Your task to perform on an android device: Set the phone to "Do not disturb". Image 0: 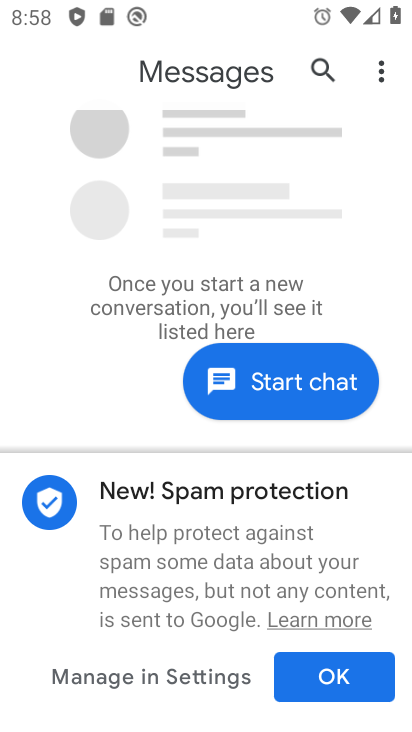
Step 0: press home button
Your task to perform on an android device: Set the phone to "Do not disturb". Image 1: 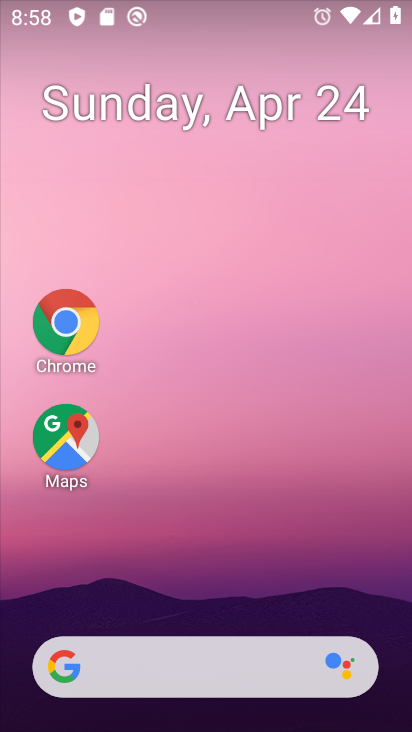
Step 1: drag from (207, 539) to (217, 28)
Your task to perform on an android device: Set the phone to "Do not disturb". Image 2: 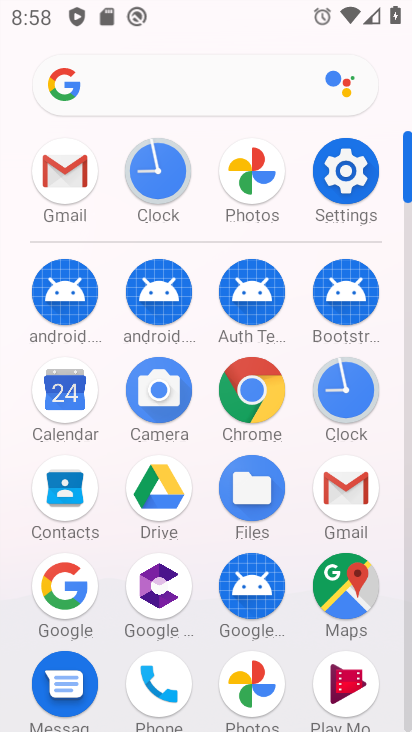
Step 2: click (344, 179)
Your task to perform on an android device: Set the phone to "Do not disturb". Image 3: 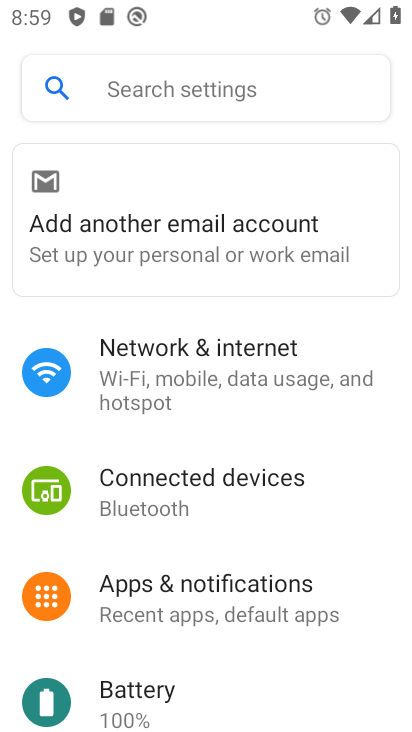
Step 3: drag from (214, 598) to (187, 346)
Your task to perform on an android device: Set the phone to "Do not disturb". Image 4: 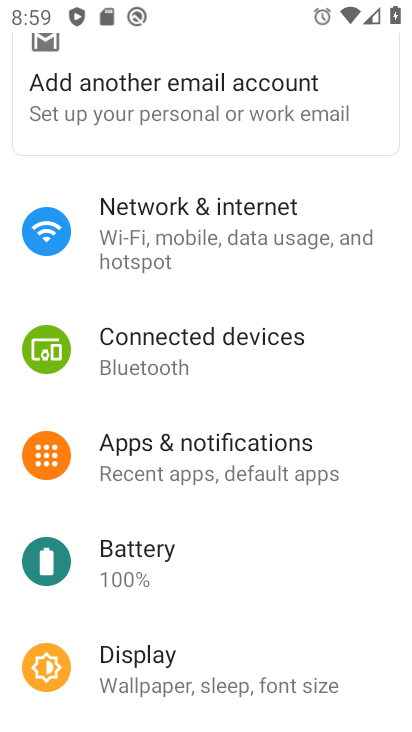
Step 4: drag from (197, 607) to (231, 293)
Your task to perform on an android device: Set the phone to "Do not disturb". Image 5: 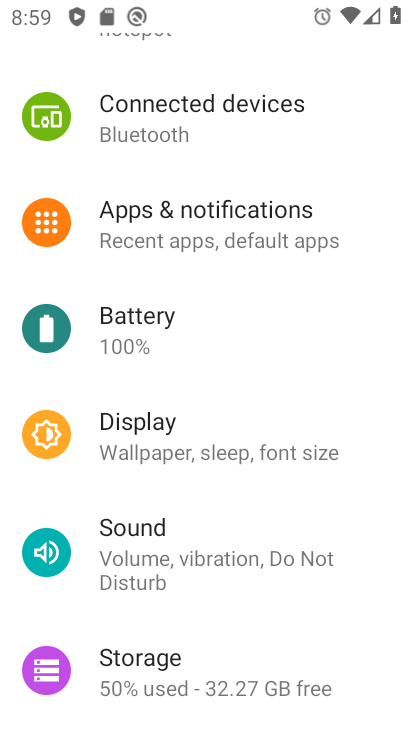
Step 5: click (135, 539)
Your task to perform on an android device: Set the phone to "Do not disturb". Image 6: 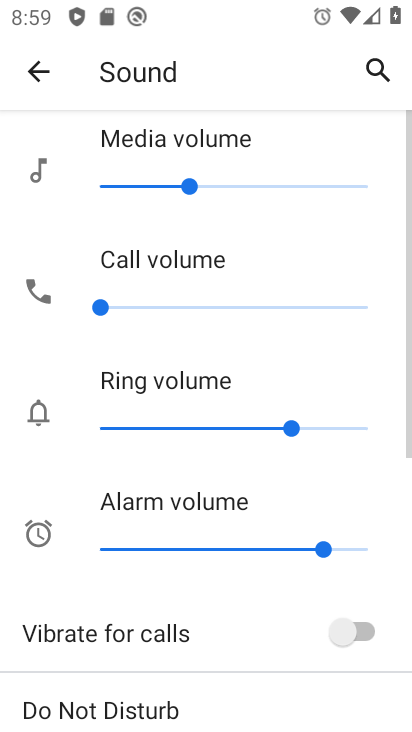
Step 6: drag from (210, 492) to (184, 123)
Your task to perform on an android device: Set the phone to "Do not disturb". Image 7: 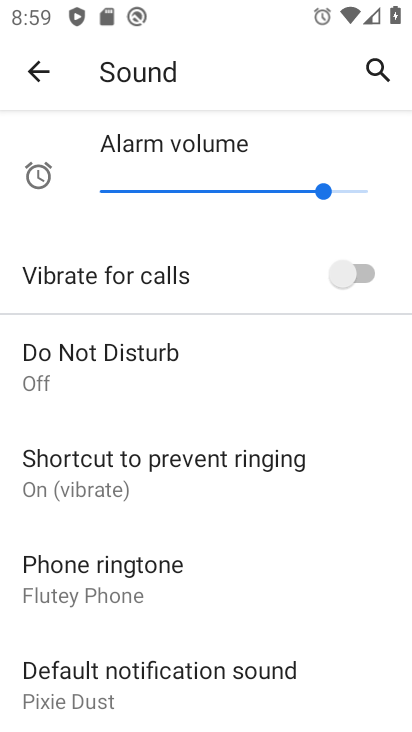
Step 7: click (76, 358)
Your task to perform on an android device: Set the phone to "Do not disturb". Image 8: 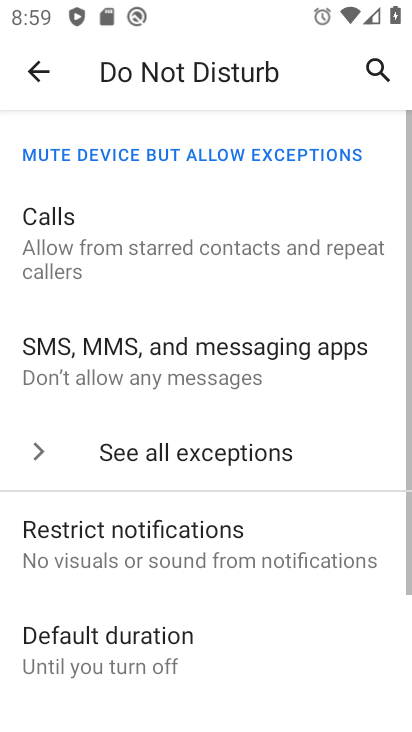
Step 8: drag from (168, 437) to (167, 40)
Your task to perform on an android device: Set the phone to "Do not disturb". Image 9: 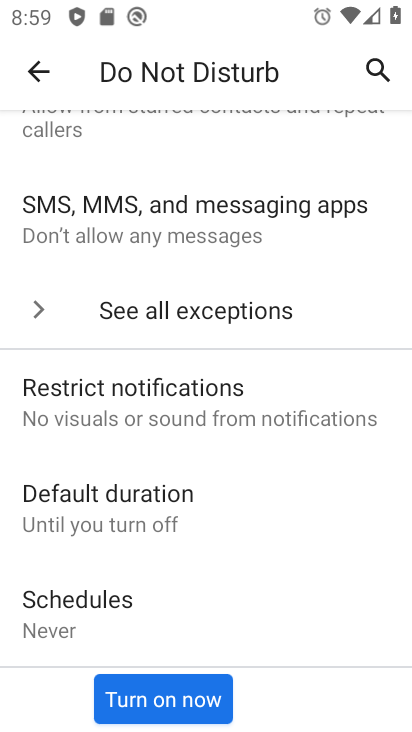
Step 9: click (156, 694)
Your task to perform on an android device: Set the phone to "Do not disturb". Image 10: 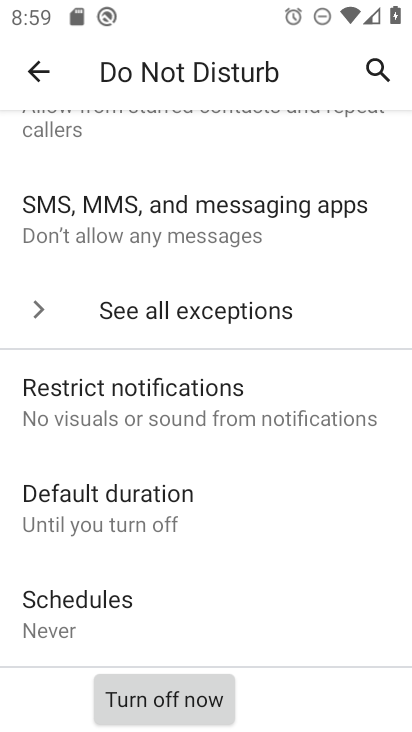
Step 10: task complete